Your task to perform on an android device: turn off notifications settings in the gmail app Image 0: 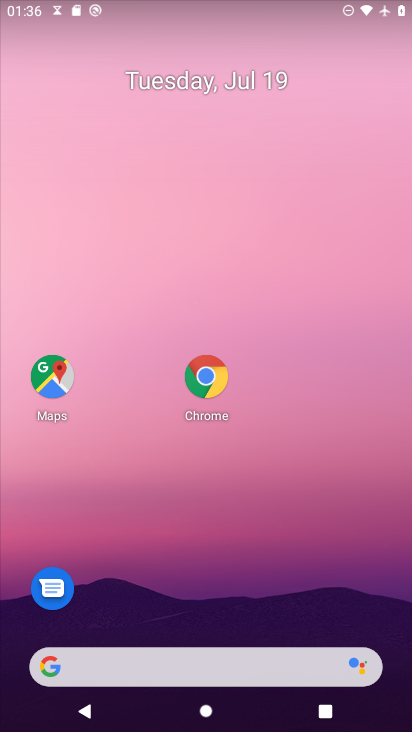
Step 0: press home button
Your task to perform on an android device: turn off notifications settings in the gmail app Image 1: 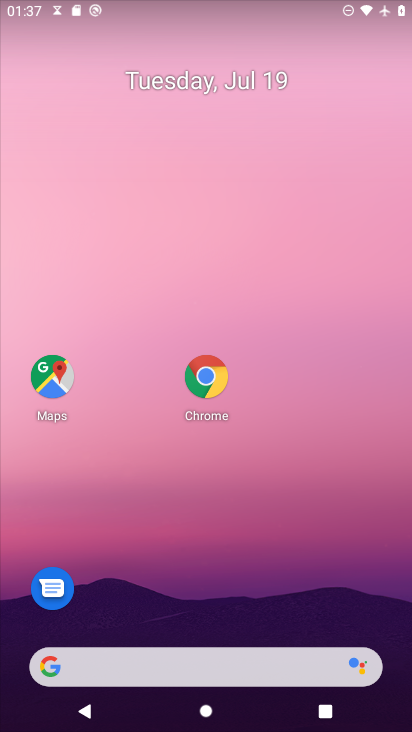
Step 1: drag from (212, 630) to (271, 59)
Your task to perform on an android device: turn off notifications settings in the gmail app Image 2: 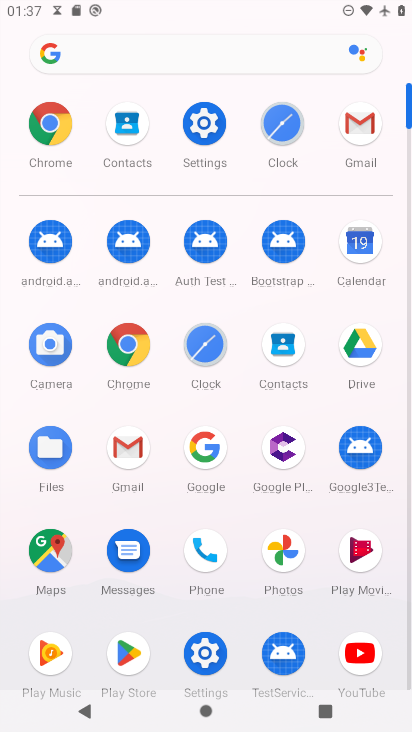
Step 2: click (357, 143)
Your task to perform on an android device: turn off notifications settings in the gmail app Image 3: 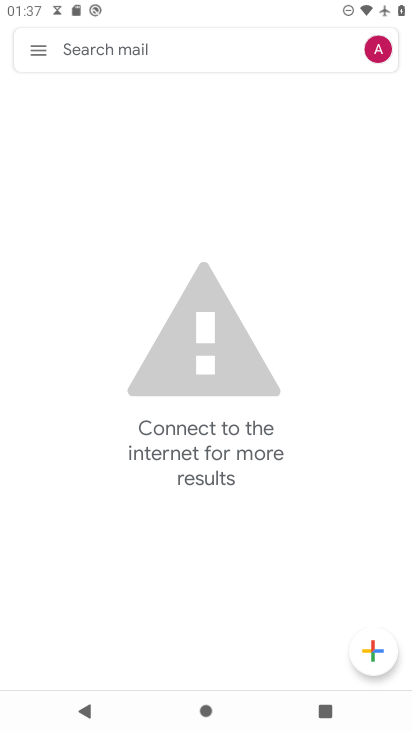
Step 3: click (34, 46)
Your task to perform on an android device: turn off notifications settings in the gmail app Image 4: 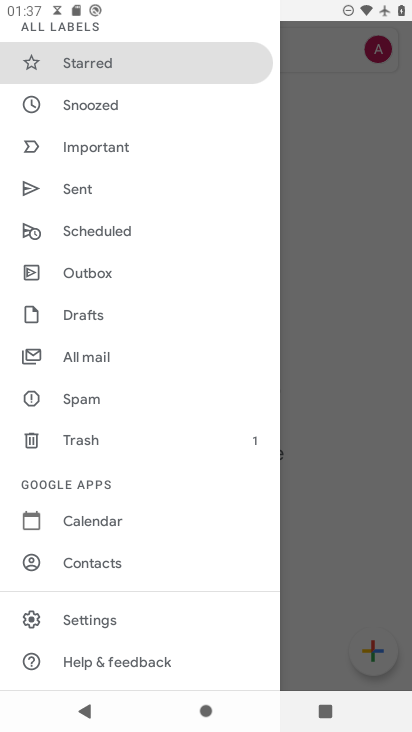
Step 4: click (96, 616)
Your task to perform on an android device: turn off notifications settings in the gmail app Image 5: 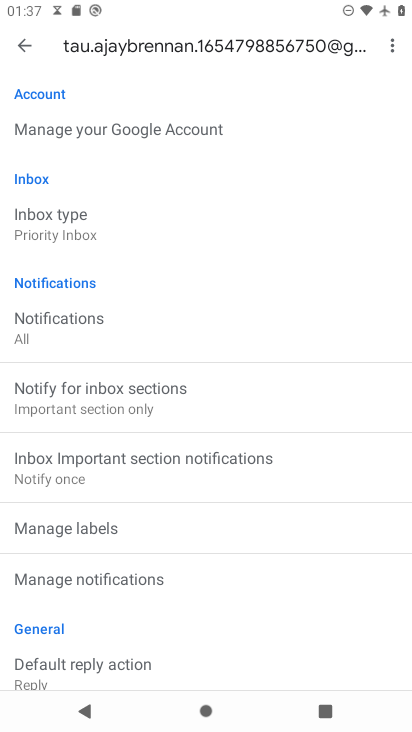
Step 5: click (82, 577)
Your task to perform on an android device: turn off notifications settings in the gmail app Image 6: 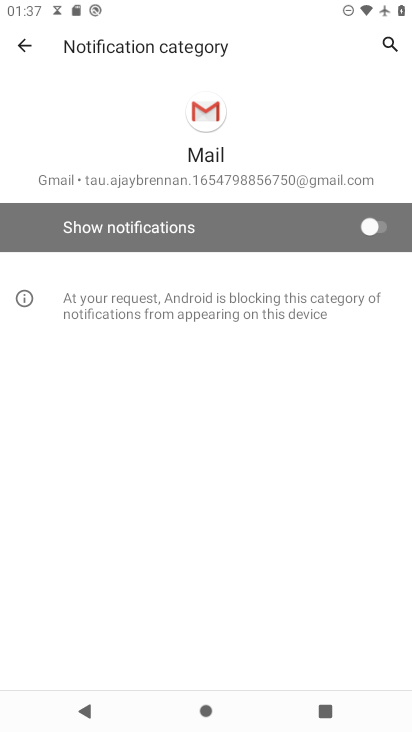
Step 6: task complete